Your task to perform on an android device: Open the web browser Image 0: 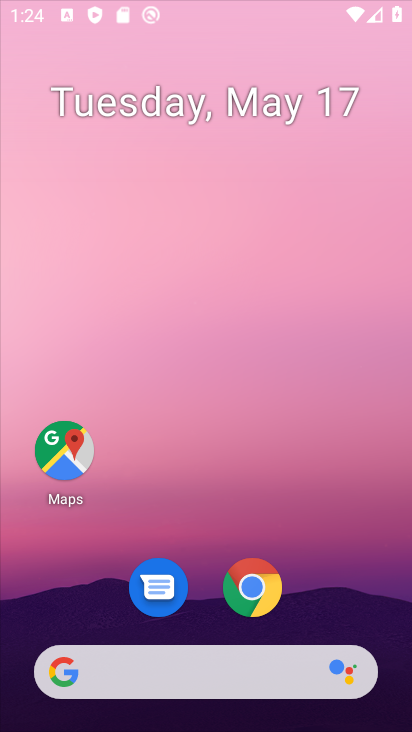
Step 0: drag from (189, 625) to (263, 57)
Your task to perform on an android device: Open the web browser Image 1: 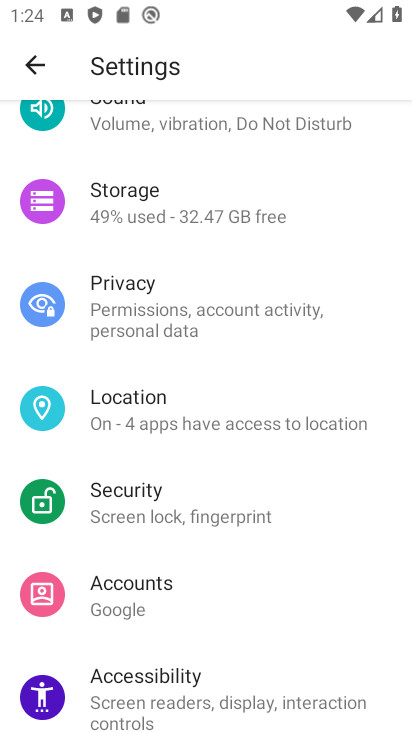
Step 1: drag from (212, 612) to (269, 212)
Your task to perform on an android device: Open the web browser Image 2: 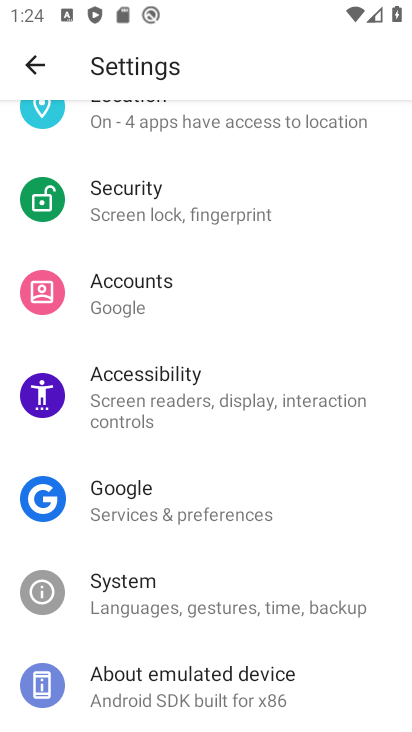
Step 2: press home button
Your task to perform on an android device: Open the web browser Image 3: 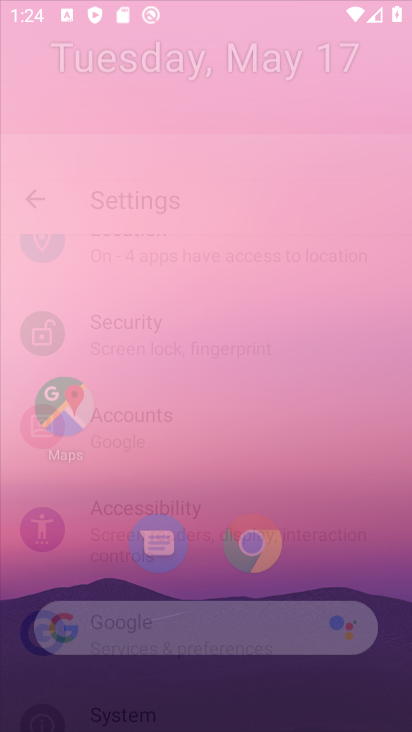
Step 3: drag from (168, 612) to (193, 217)
Your task to perform on an android device: Open the web browser Image 4: 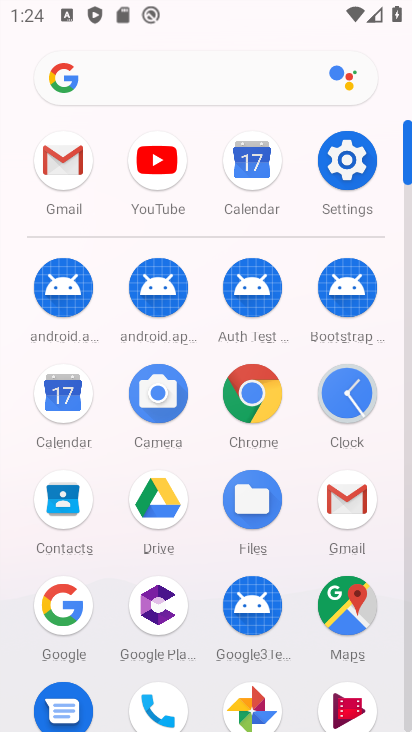
Step 4: click (245, 383)
Your task to perform on an android device: Open the web browser Image 5: 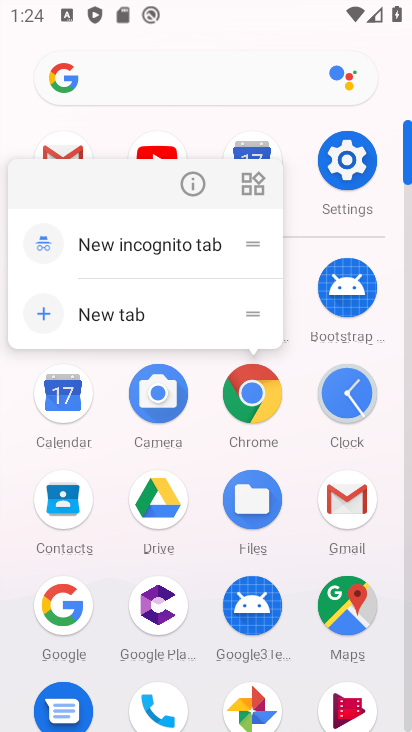
Step 5: click (199, 178)
Your task to perform on an android device: Open the web browser Image 6: 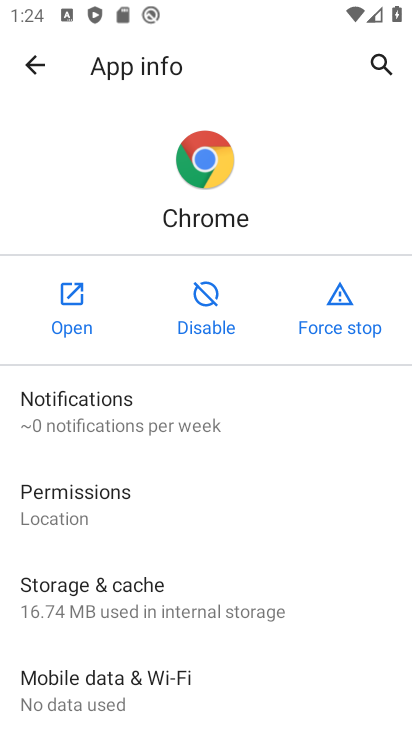
Step 6: click (62, 311)
Your task to perform on an android device: Open the web browser Image 7: 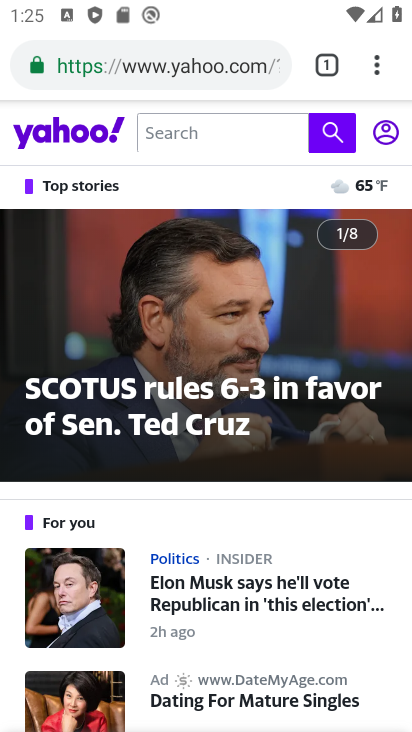
Step 7: task complete